Your task to perform on an android device: turn pop-ups on in chrome Image 0: 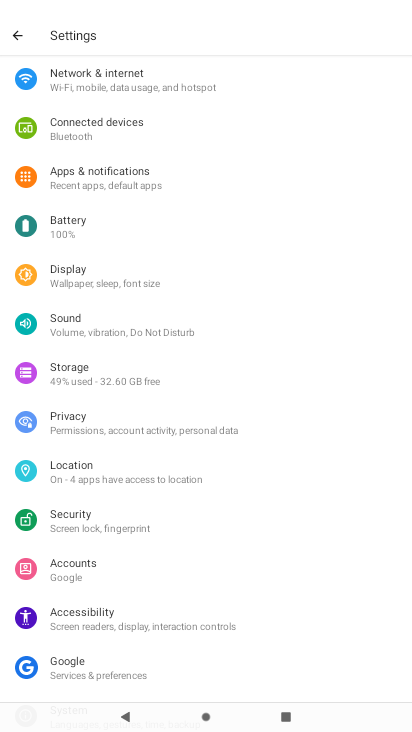
Step 0: press home button
Your task to perform on an android device: turn pop-ups on in chrome Image 1: 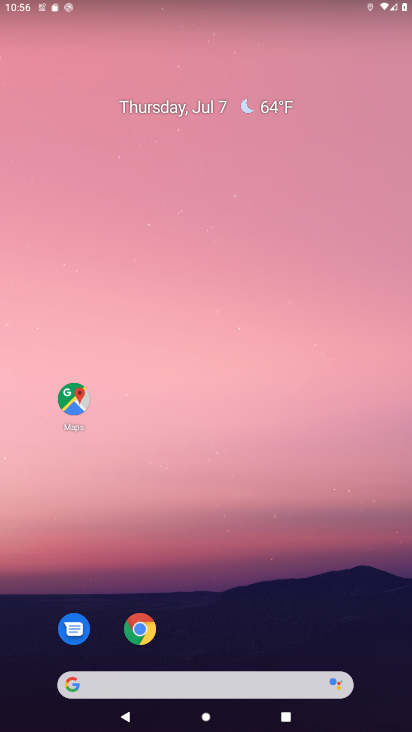
Step 1: click (140, 630)
Your task to perform on an android device: turn pop-ups on in chrome Image 2: 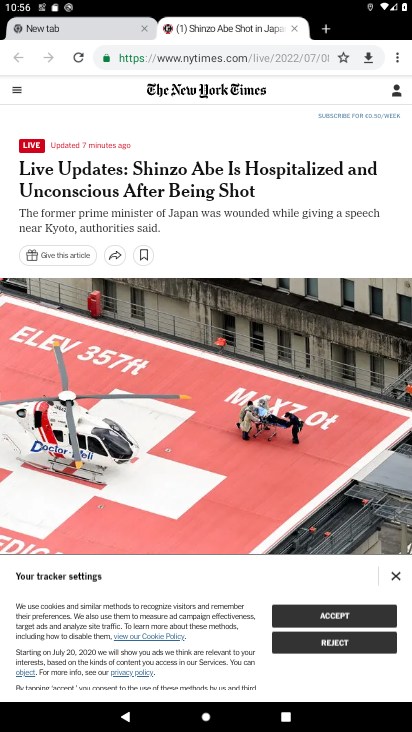
Step 2: click (399, 59)
Your task to perform on an android device: turn pop-ups on in chrome Image 3: 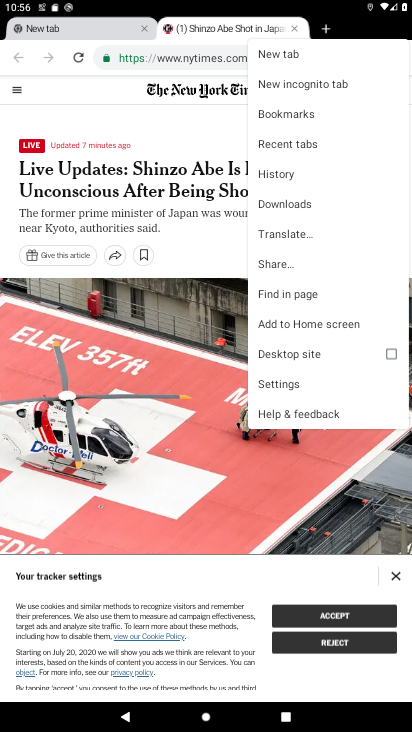
Step 3: click (288, 381)
Your task to perform on an android device: turn pop-ups on in chrome Image 4: 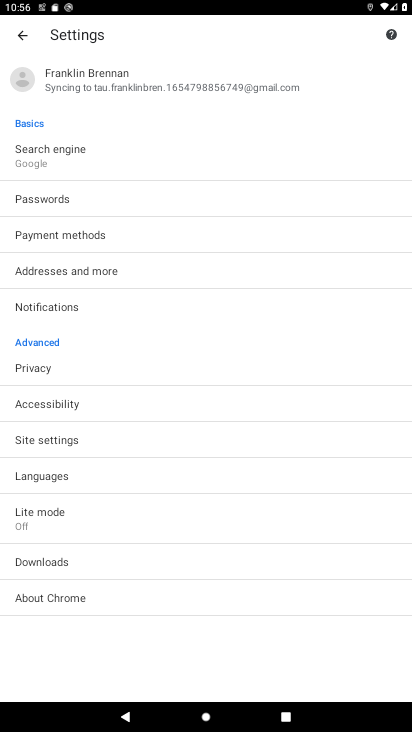
Step 4: click (61, 442)
Your task to perform on an android device: turn pop-ups on in chrome Image 5: 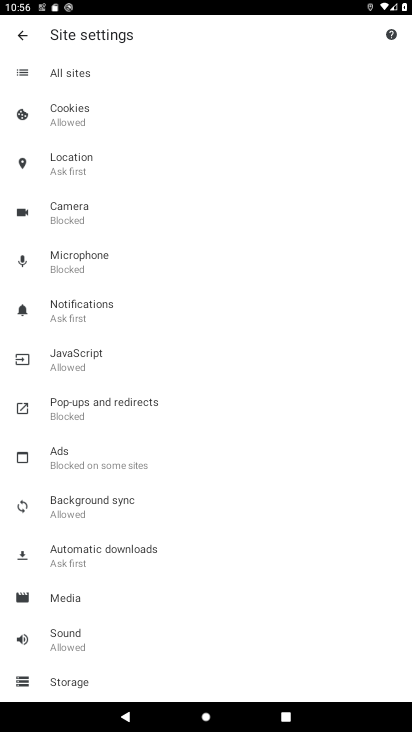
Step 5: click (87, 406)
Your task to perform on an android device: turn pop-ups on in chrome Image 6: 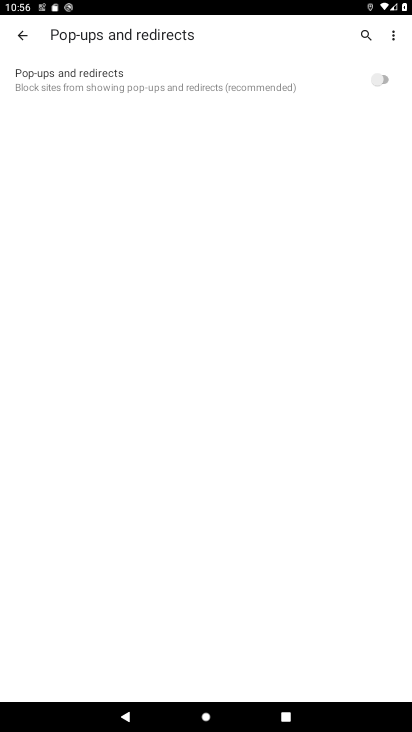
Step 6: click (377, 80)
Your task to perform on an android device: turn pop-ups on in chrome Image 7: 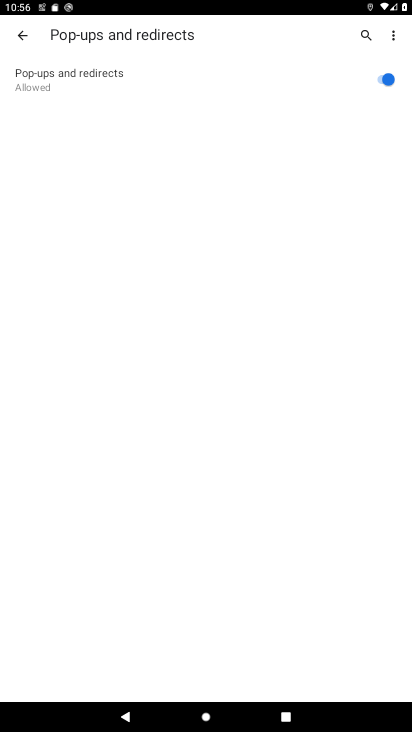
Step 7: task complete